Your task to perform on an android device: change timer sound Image 0: 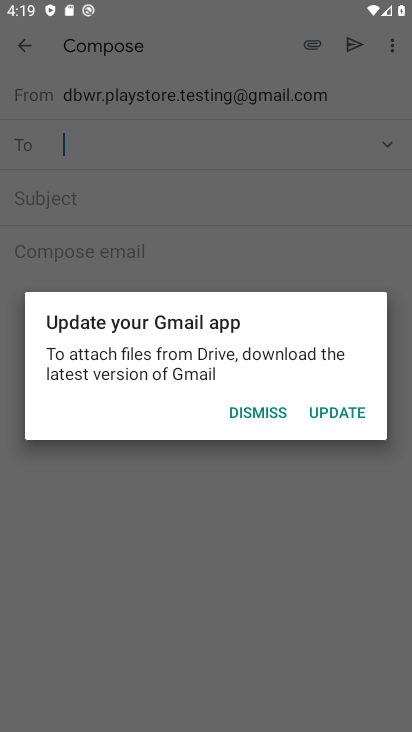
Step 0: click (267, 414)
Your task to perform on an android device: change timer sound Image 1: 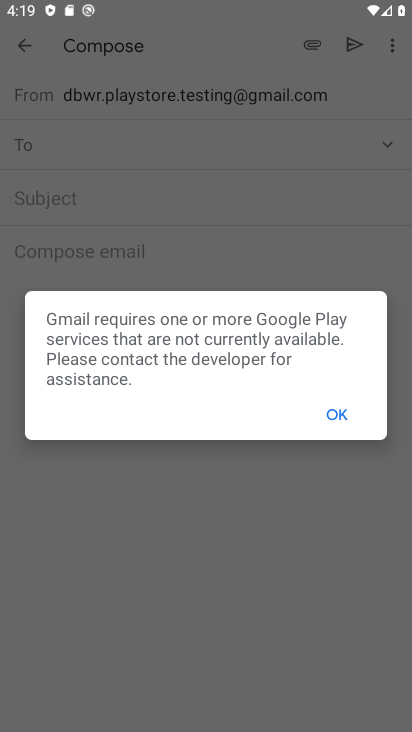
Step 1: click (340, 422)
Your task to perform on an android device: change timer sound Image 2: 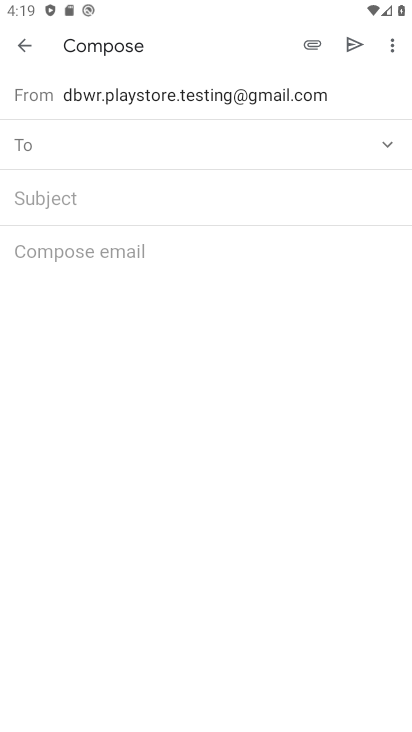
Step 2: press home button
Your task to perform on an android device: change timer sound Image 3: 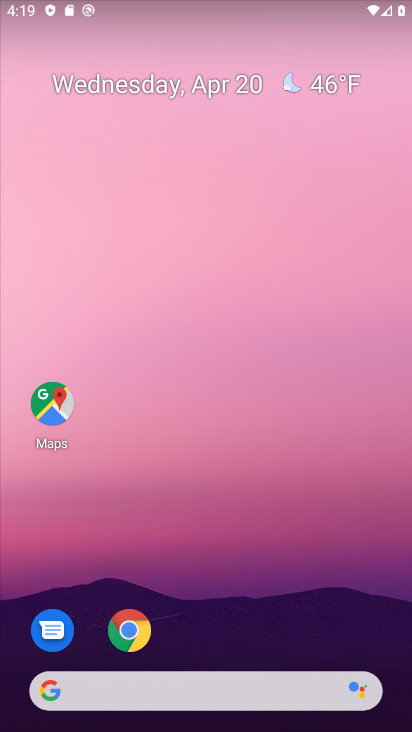
Step 3: drag from (178, 635) to (219, 254)
Your task to perform on an android device: change timer sound Image 4: 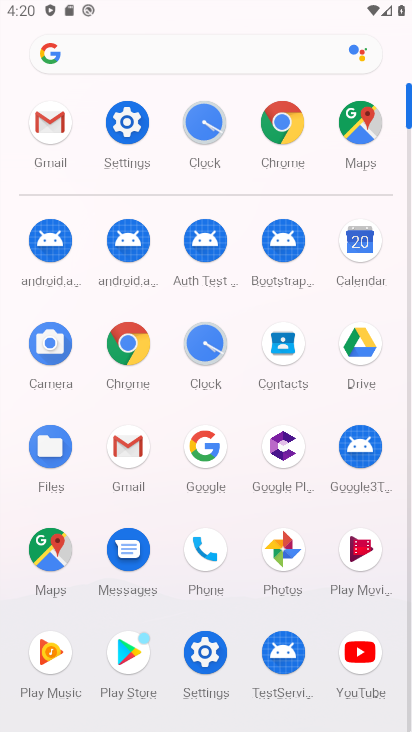
Step 4: click (197, 343)
Your task to perform on an android device: change timer sound Image 5: 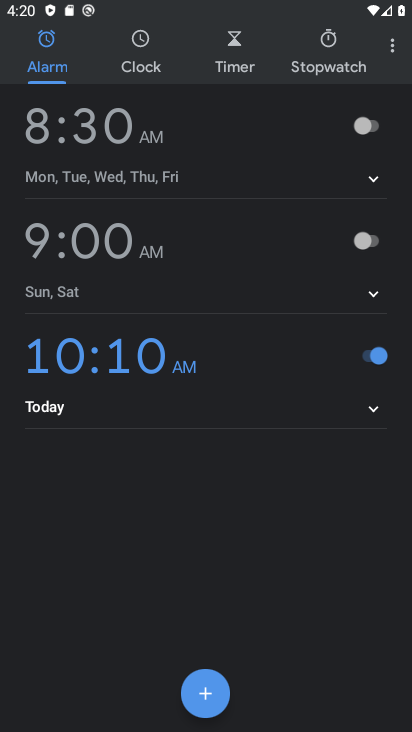
Step 5: click (396, 50)
Your task to perform on an android device: change timer sound Image 6: 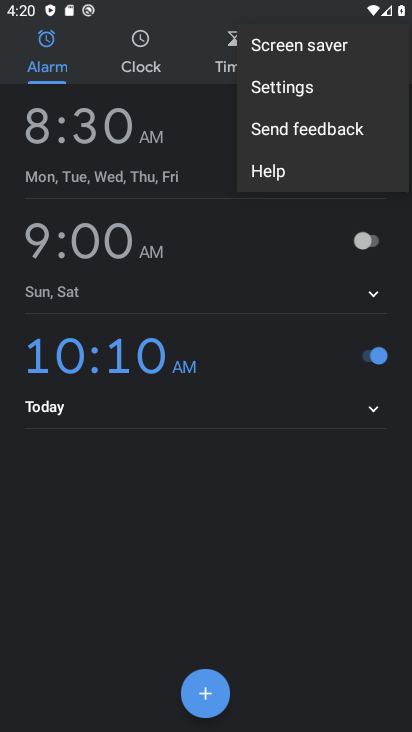
Step 6: click (304, 94)
Your task to perform on an android device: change timer sound Image 7: 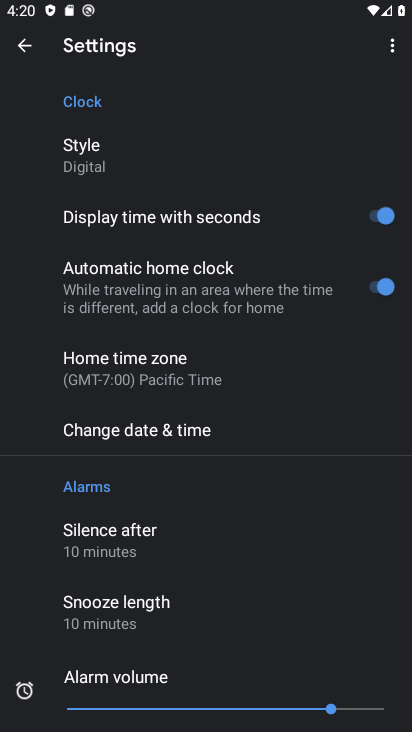
Step 7: drag from (160, 624) to (137, 274)
Your task to perform on an android device: change timer sound Image 8: 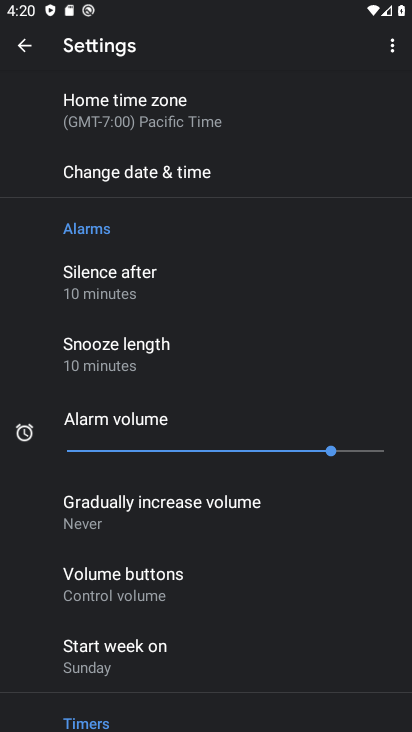
Step 8: drag from (105, 622) to (158, 280)
Your task to perform on an android device: change timer sound Image 9: 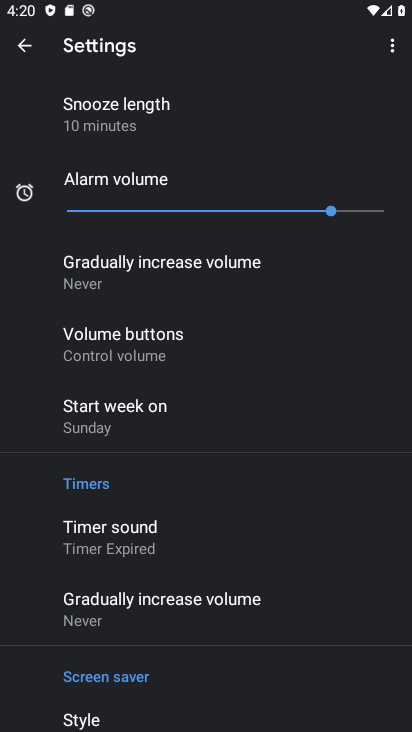
Step 9: click (108, 539)
Your task to perform on an android device: change timer sound Image 10: 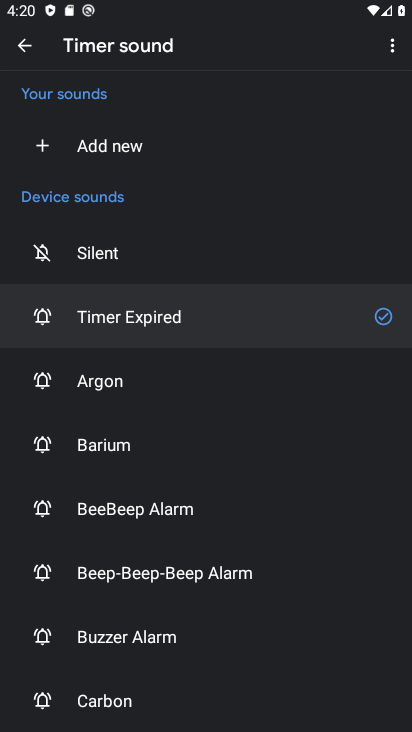
Step 10: click (104, 394)
Your task to perform on an android device: change timer sound Image 11: 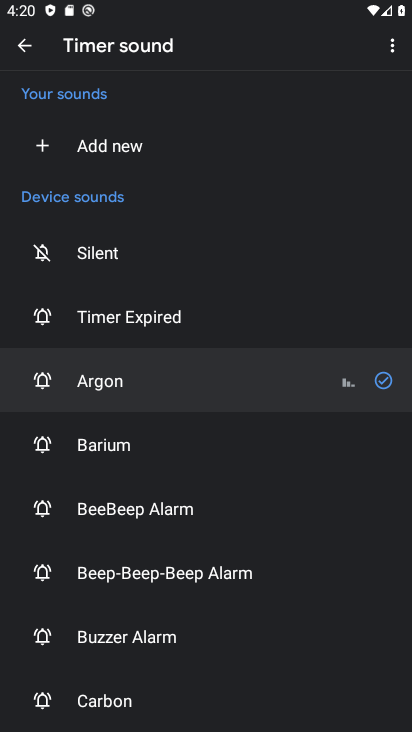
Step 11: task complete